Your task to perform on an android device: set an alarm Image 0: 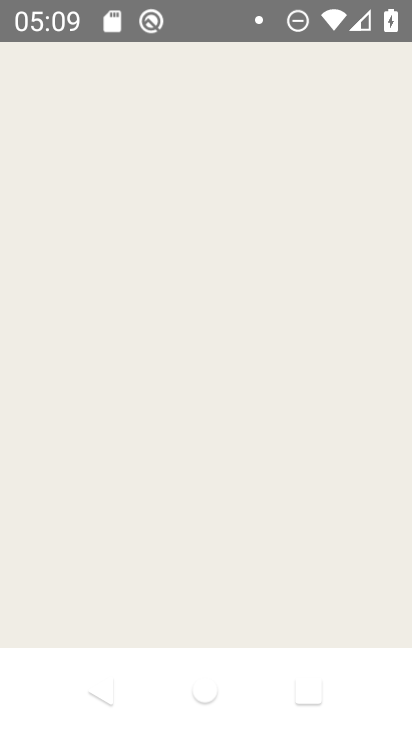
Step 0: drag from (228, 506) to (223, 395)
Your task to perform on an android device: set an alarm Image 1: 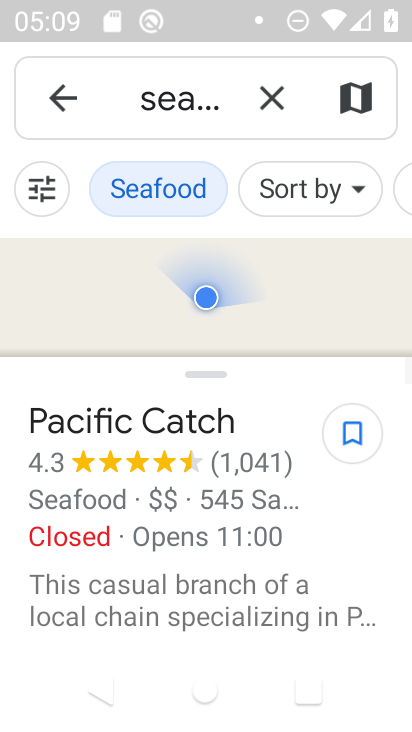
Step 1: press home button
Your task to perform on an android device: set an alarm Image 2: 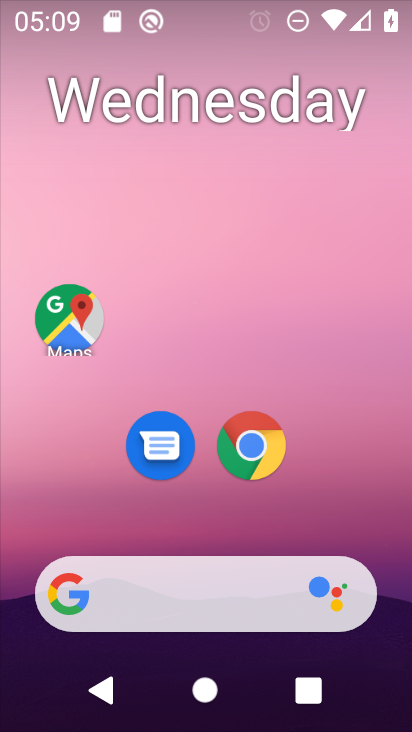
Step 2: drag from (275, 517) to (245, 175)
Your task to perform on an android device: set an alarm Image 3: 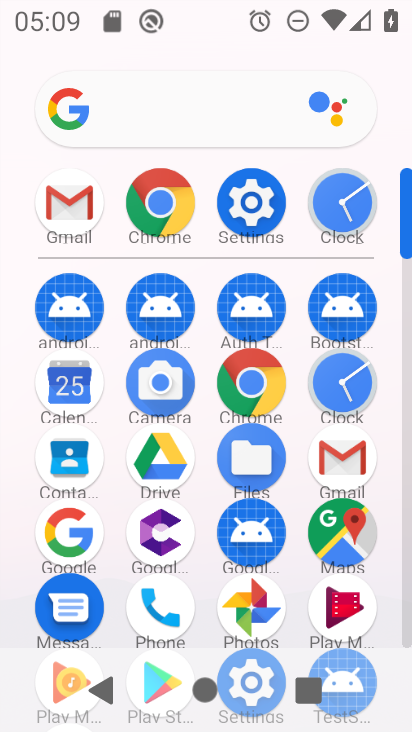
Step 3: click (369, 396)
Your task to perform on an android device: set an alarm Image 4: 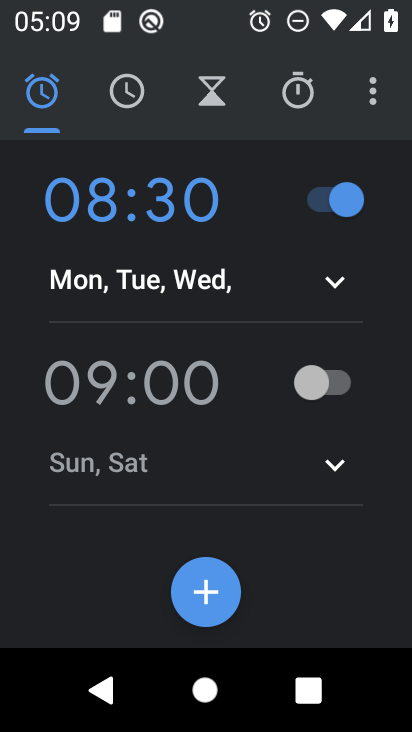
Step 4: click (332, 395)
Your task to perform on an android device: set an alarm Image 5: 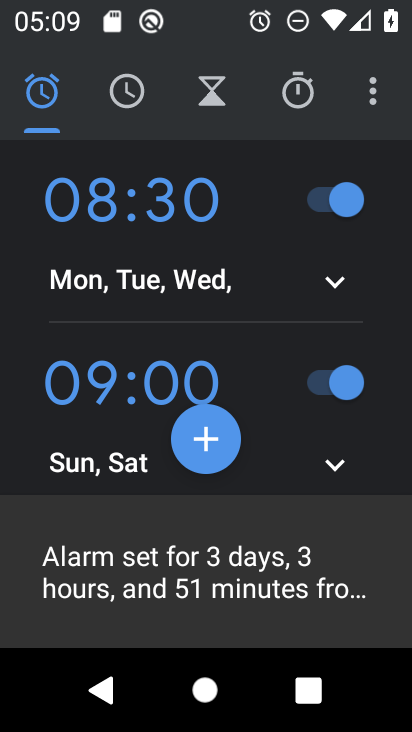
Step 5: task complete